Your task to perform on an android device: Go to Amazon Image 0: 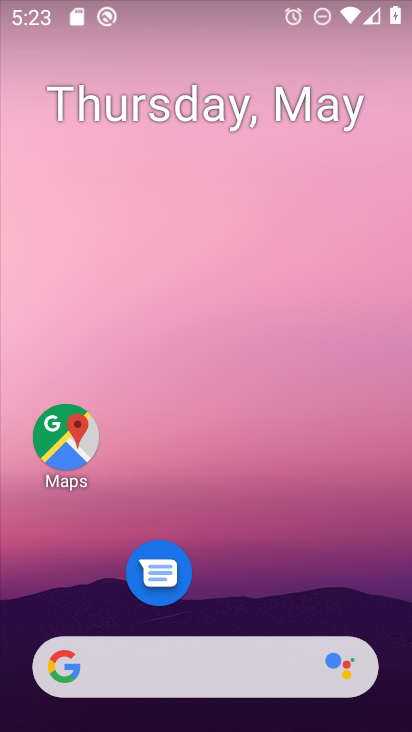
Step 0: drag from (238, 602) to (221, 18)
Your task to perform on an android device: Go to Amazon Image 1: 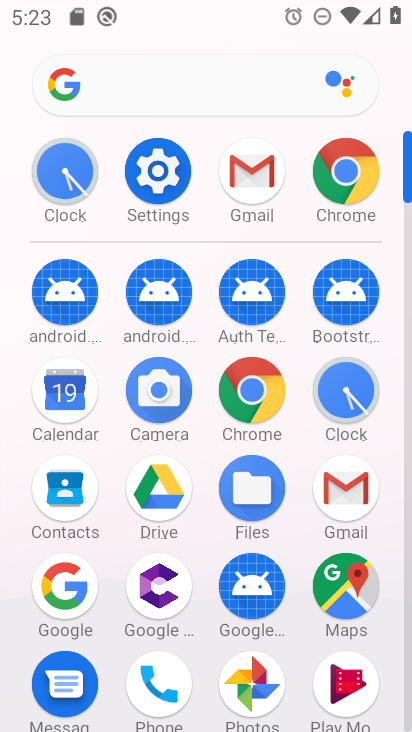
Step 1: click (334, 223)
Your task to perform on an android device: Go to Amazon Image 2: 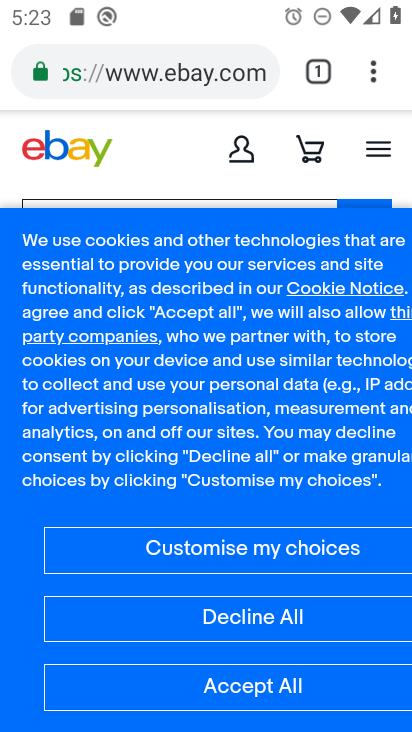
Step 2: press back button
Your task to perform on an android device: Go to Amazon Image 3: 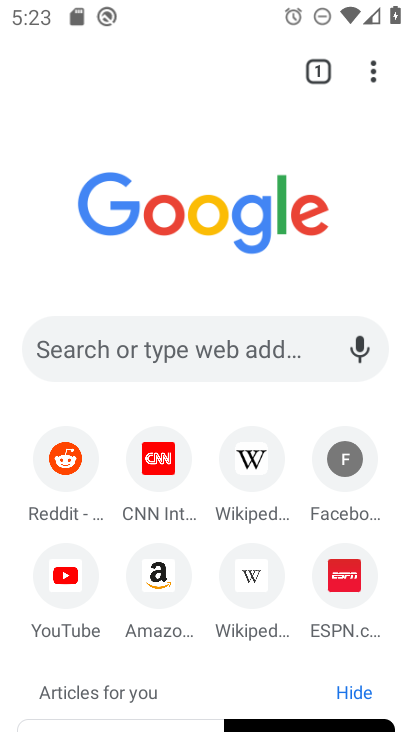
Step 3: click (166, 578)
Your task to perform on an android device: Go to Amazon Image 4: 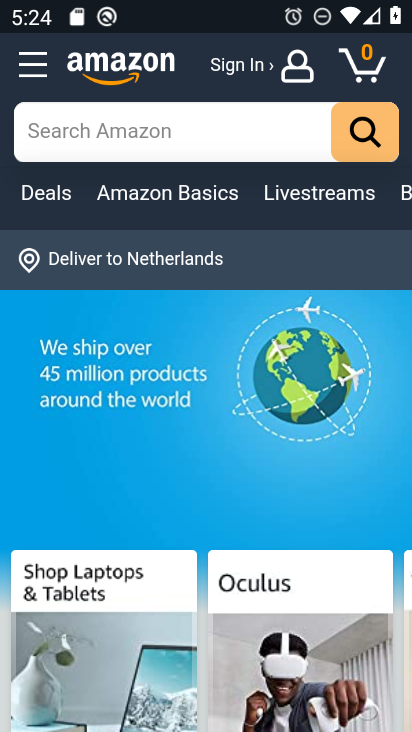
Step 4: task complete